Your task to perform on an android device: What's the price of the Galaxy phone on eBay? Image 0: 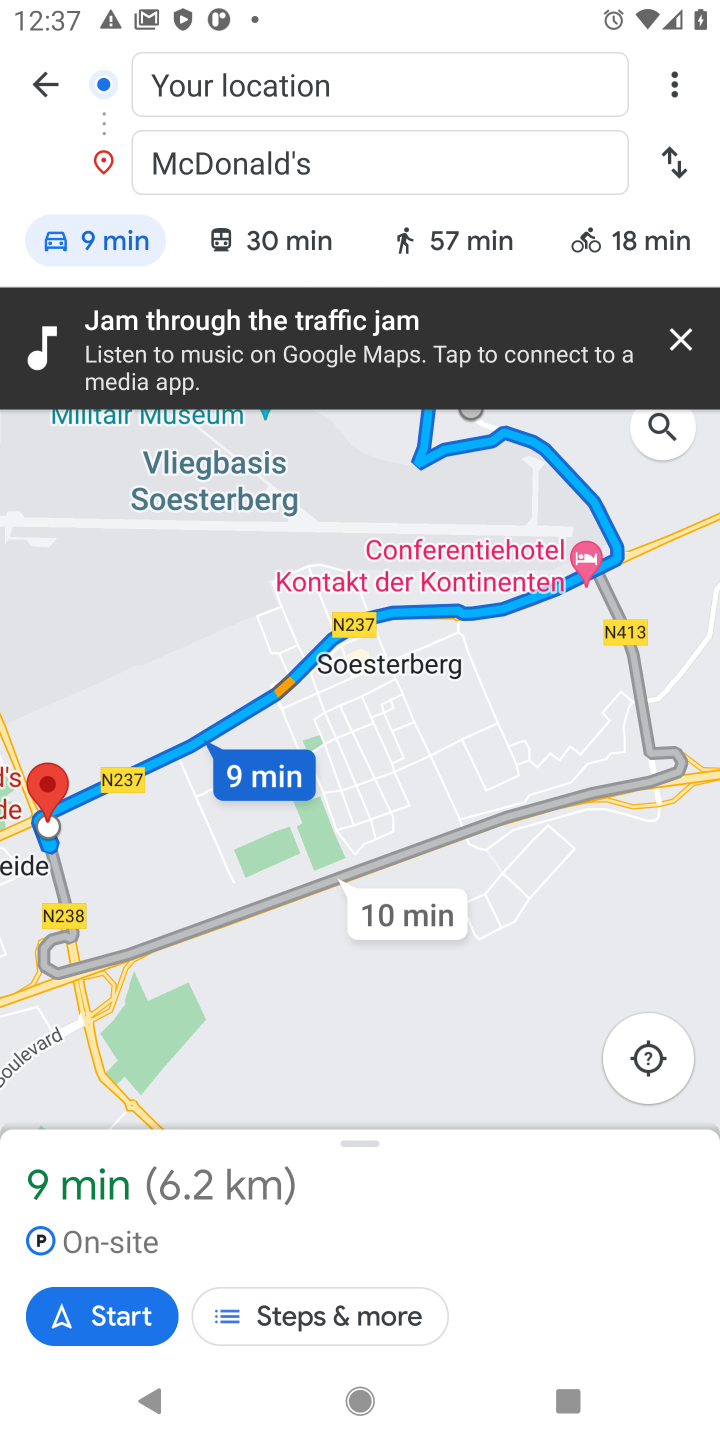
Step 0: press home button
Your task to perform on an android device: What's the price of the Galaxy phone on eBay? Image 1: 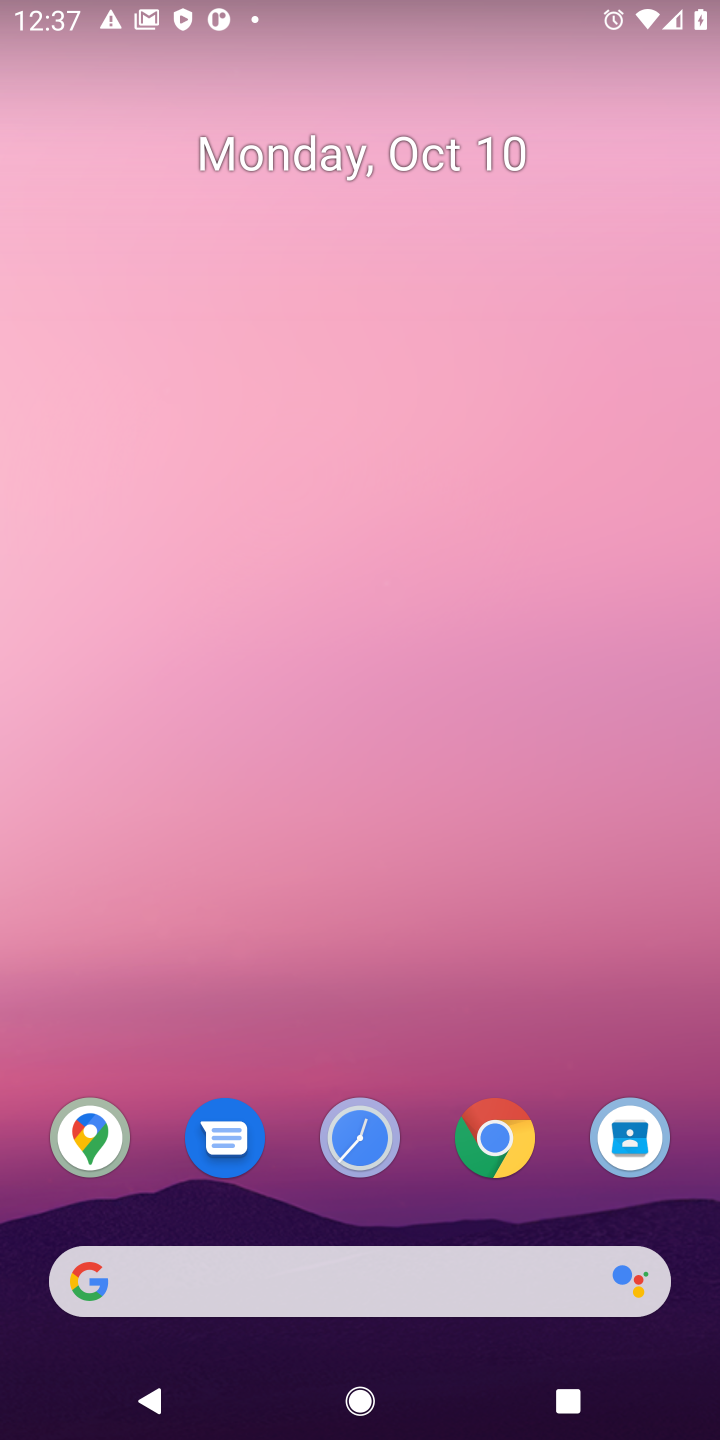
Step 1: drag from (436, 1269) to (256, 230)
Your task to perform on an android device: What's the price of the Galaxy phone on eBay? Image 2: 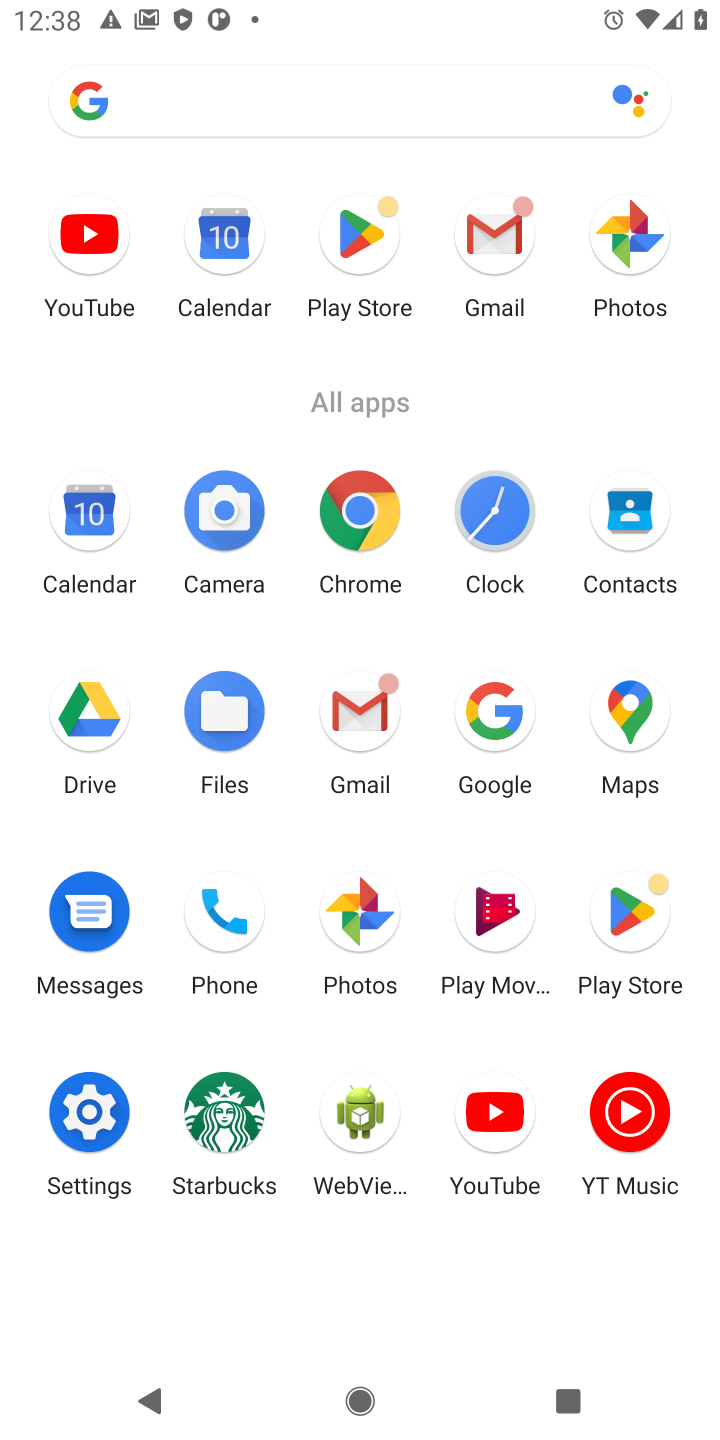
Step 2: click (361, 553)
Your task to perform on an android device: What's the price of the Galaxy phone on eBay? Image 3: 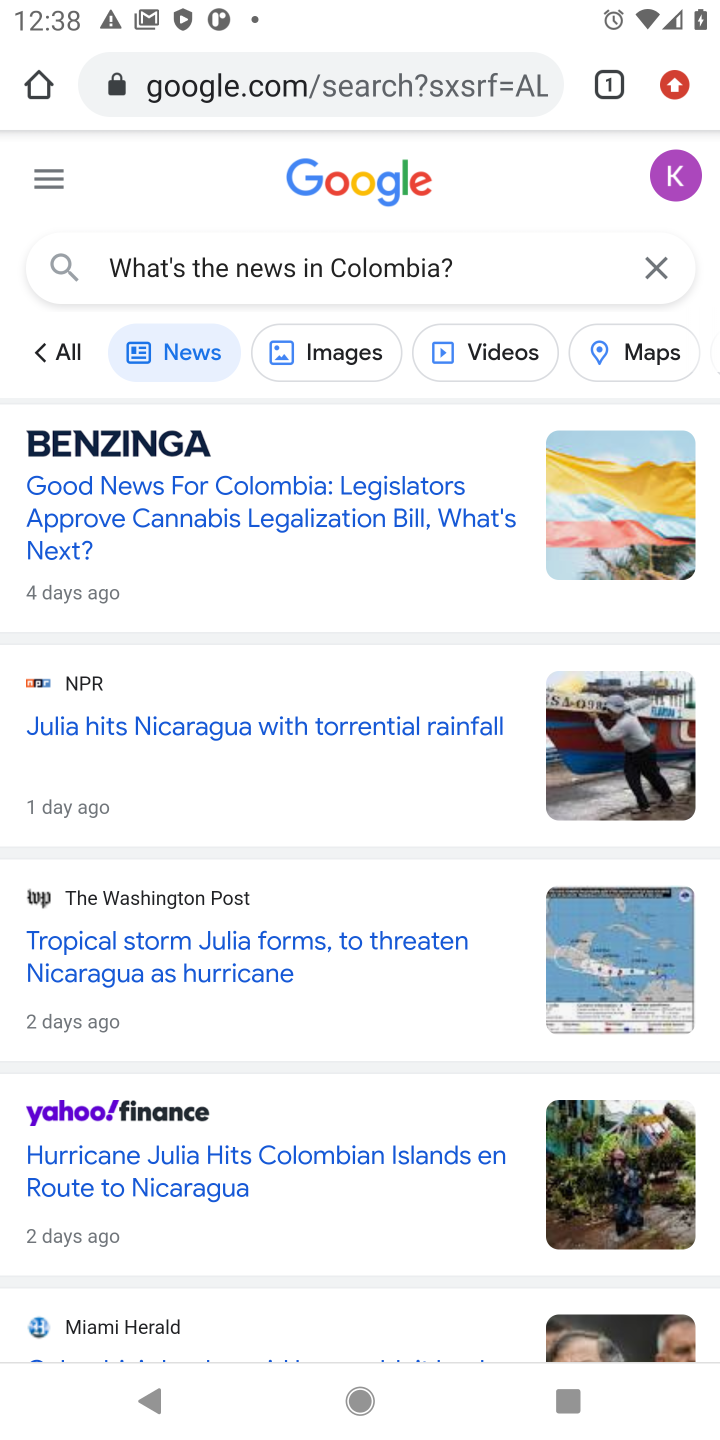
Step 3: click (666, 276)
Your task to perform on an android device: What's the price of the Galaxy phone on eBay? Image 4: 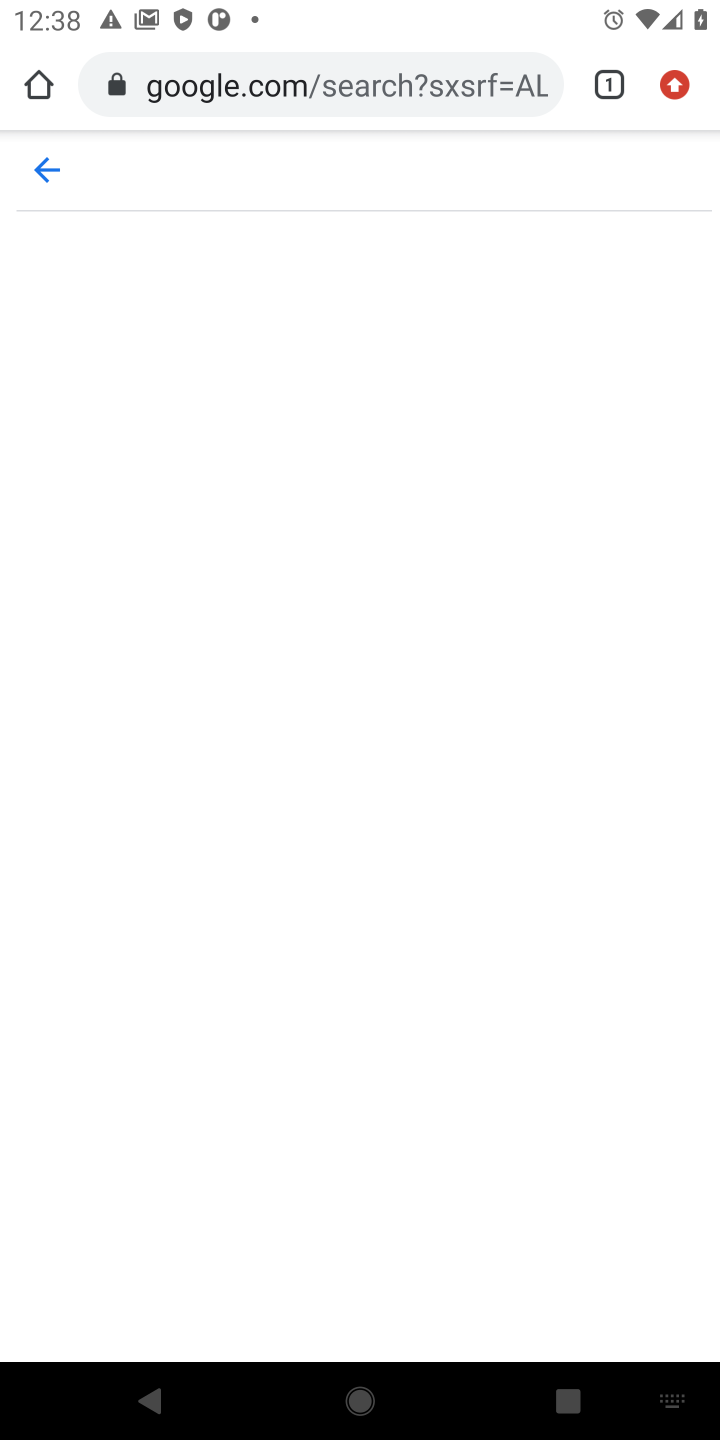
Step 4: type "What's the price of the Galaxy phone on eBay?"
Your task to perform on an android device: What's the price of the Galaxy phone on eBay? Image 5: 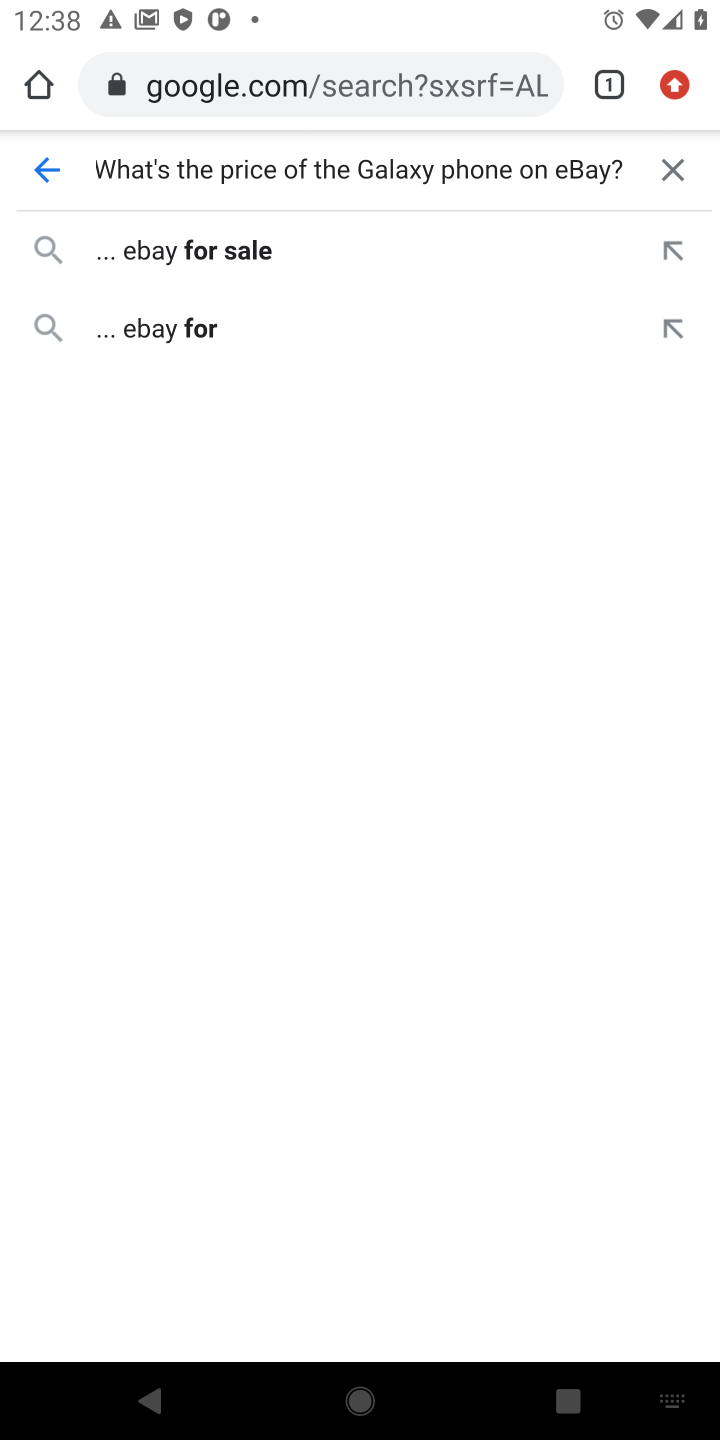
Step 5: press enter
Your task to perform on an android device: What's the price of the Galaxy phone on eBay? Image 6: 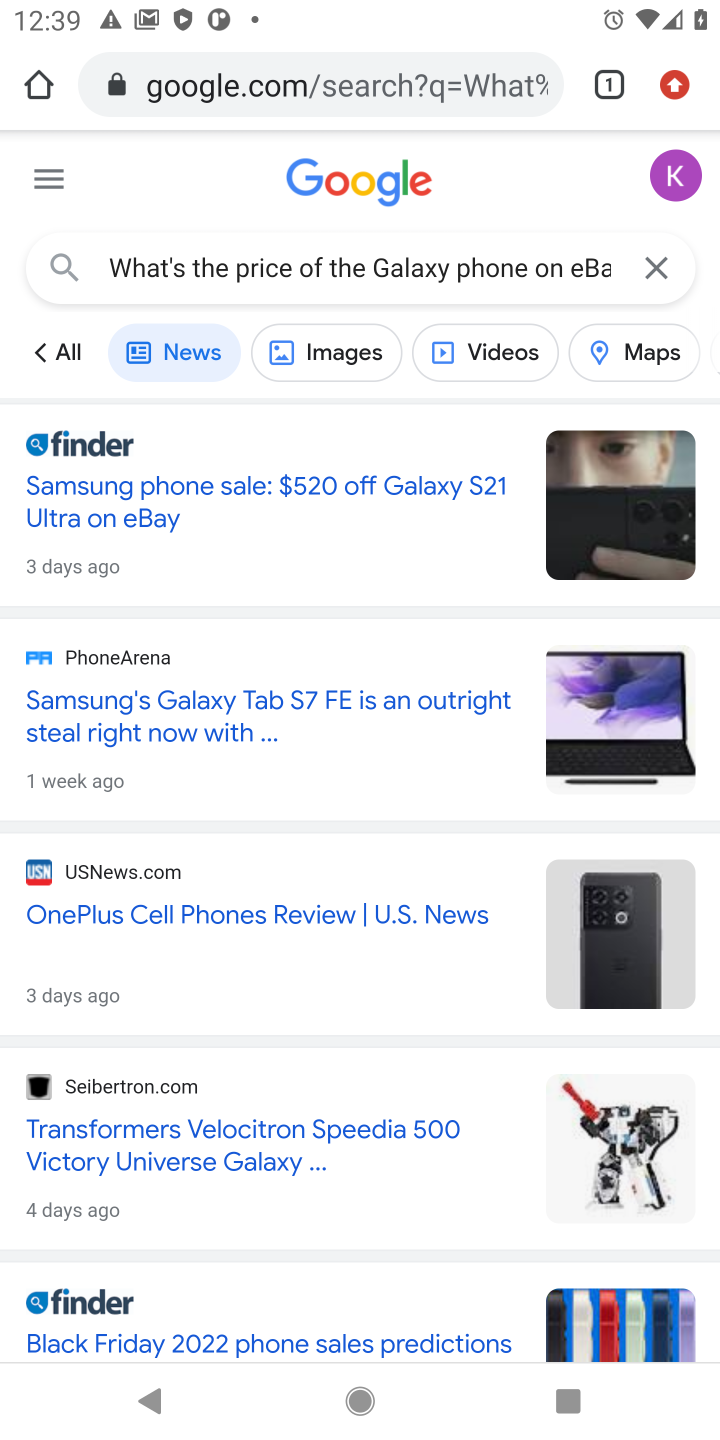
Step 6: click (44, 352)
Your task to perform on an android device: What's the price of the Galaxy phone on eBay? Image 7: 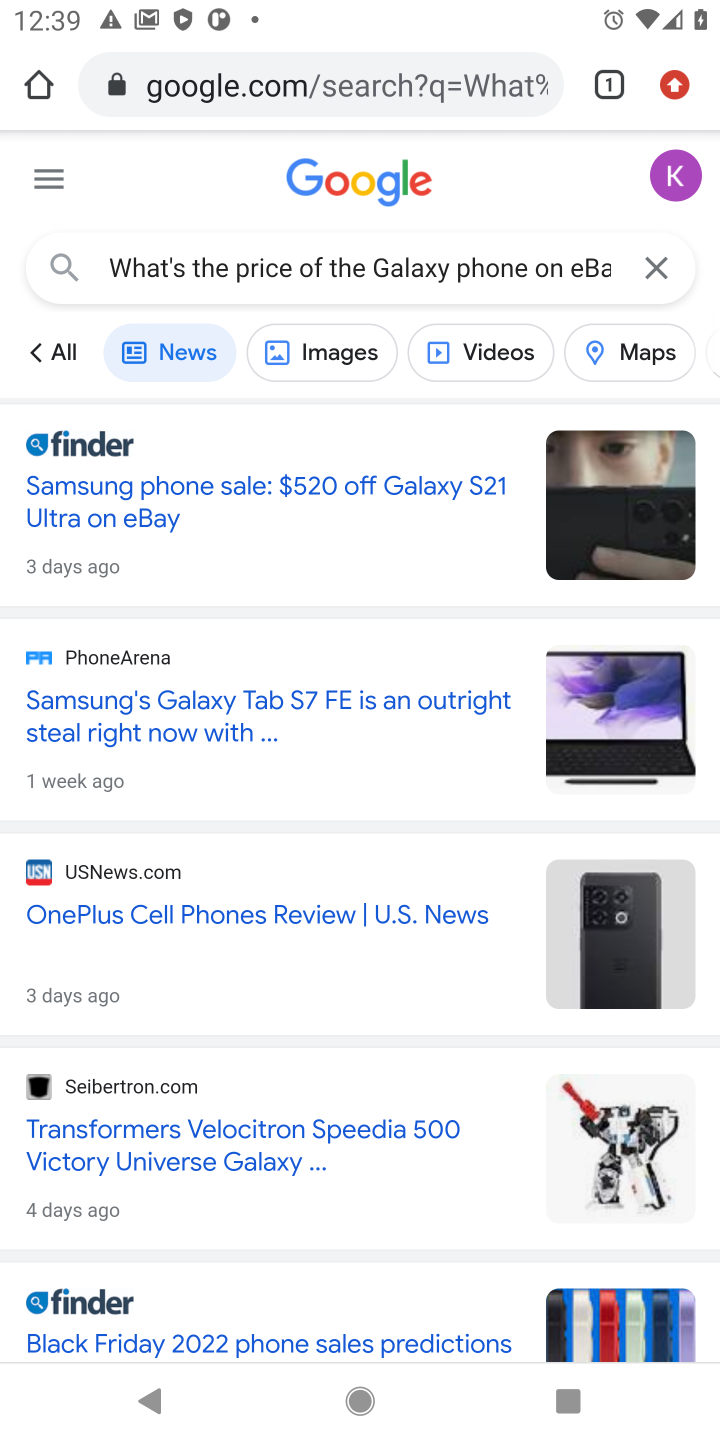
Step 7: click (37, 353)
Your task to perform on an android device: What's the price of the Galaxy phone on eBay? Image 8: 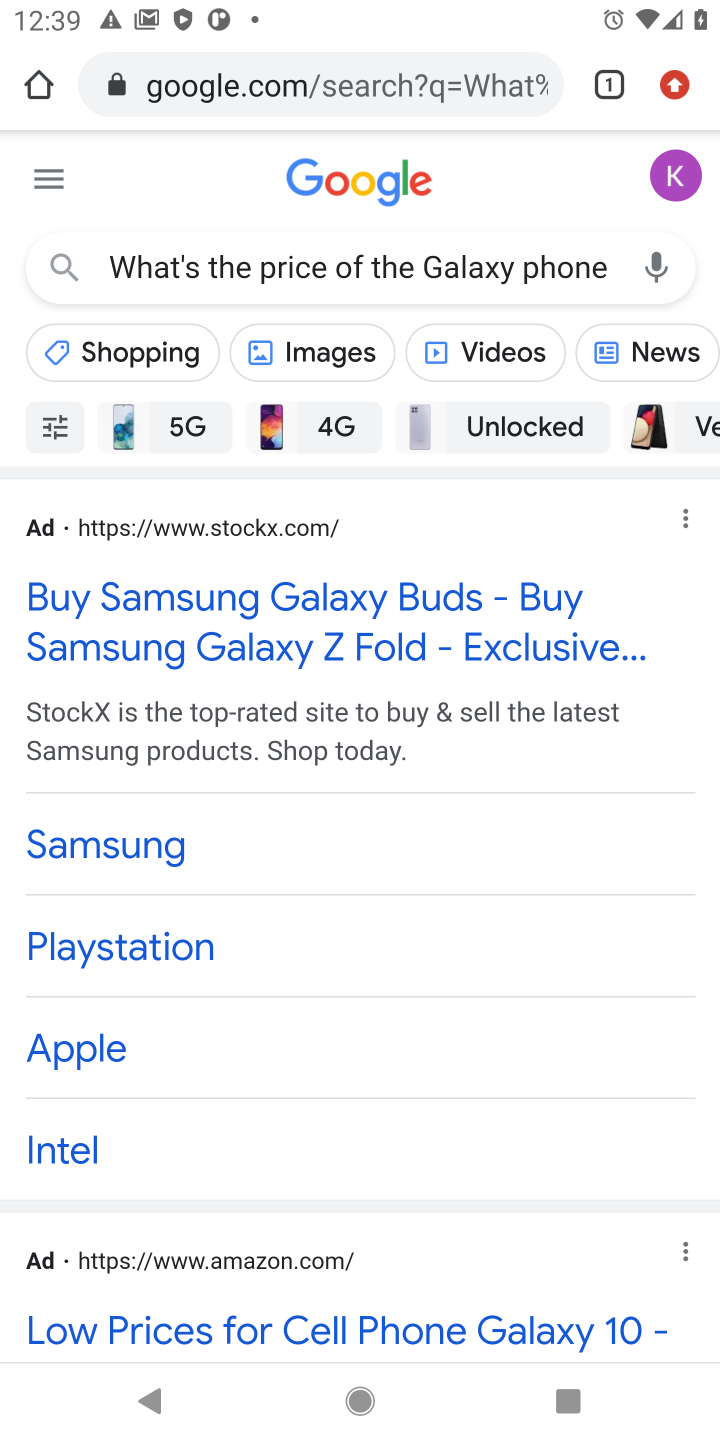
Step 8: drag from (362, 1275) to (341, 440)
Your task to perform on an android device: What's the price of the Galaxy phone on eBay? Image 9: 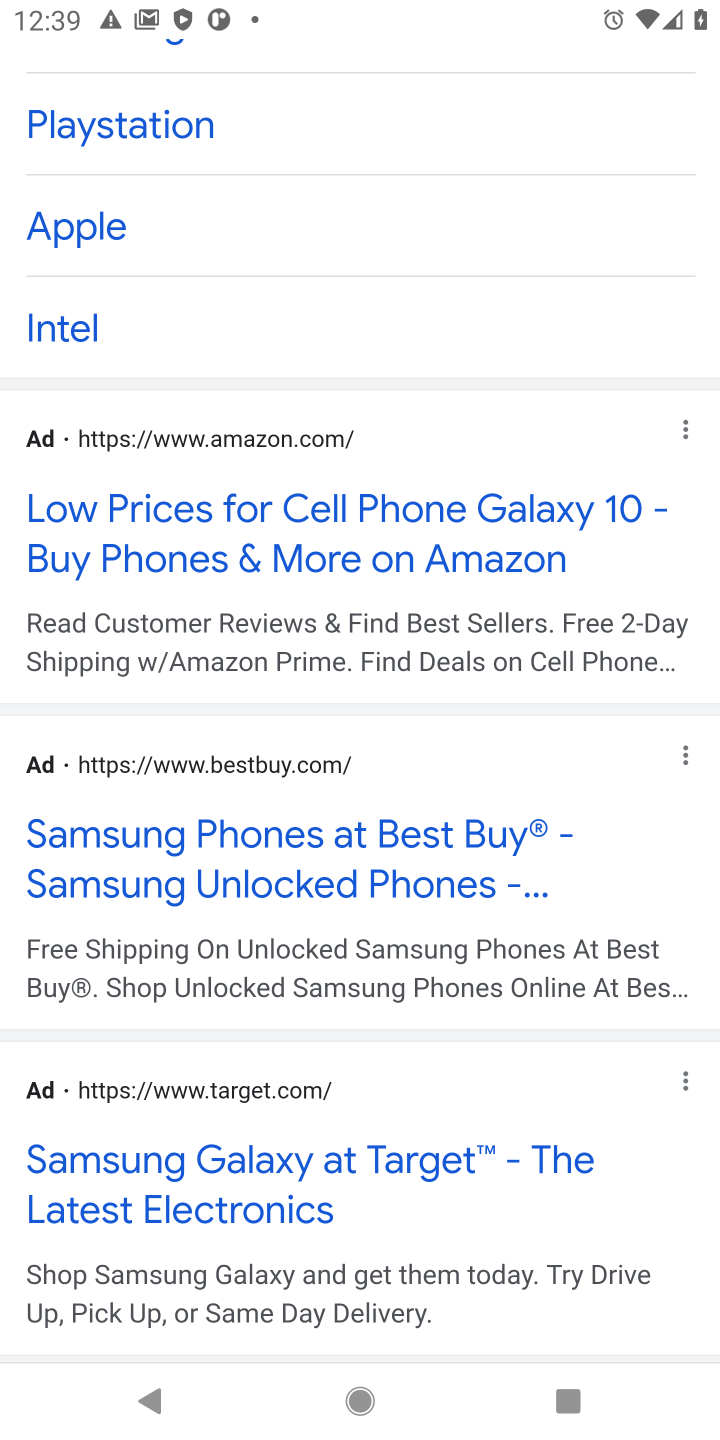
Step 9: drag from (416, 1229) to (246, 262)
Your task to perform on an android device: What's the price of the Galaxy phone on eBay? Image 10: 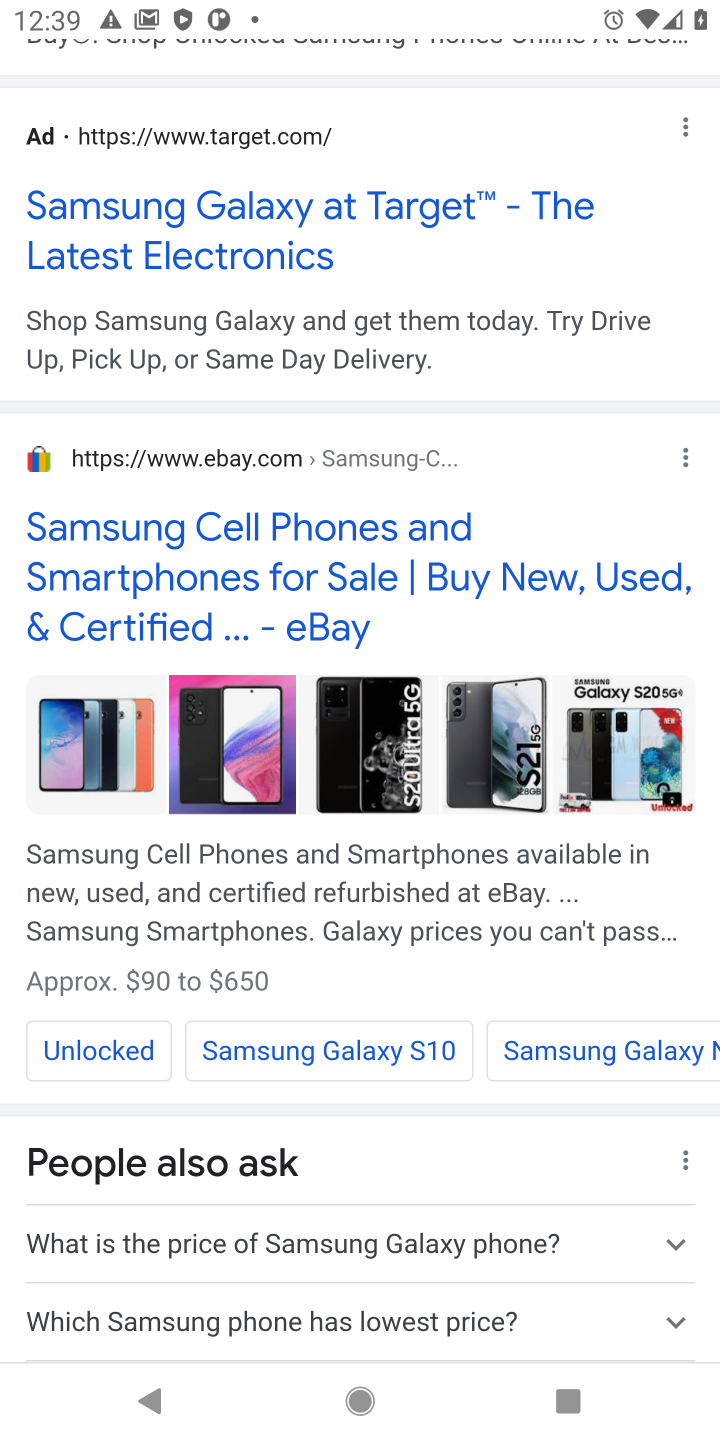
Step 10: click (310, 581)
Your task to perform on an android device: What's the price of the Galaxy phone on eBay? Image 11: 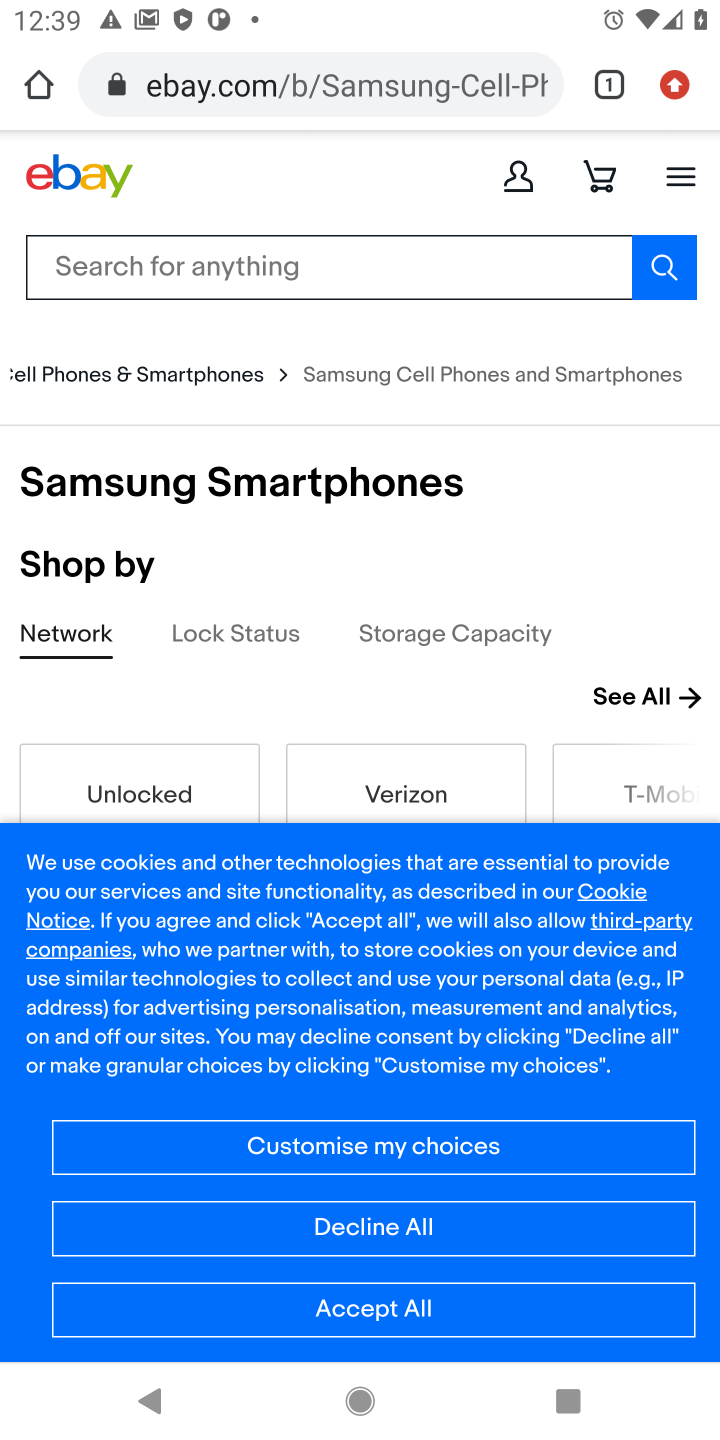
Step 11: task complete